Your task to perform on an android device: toggle priority inbox in the gmail app Image 0: 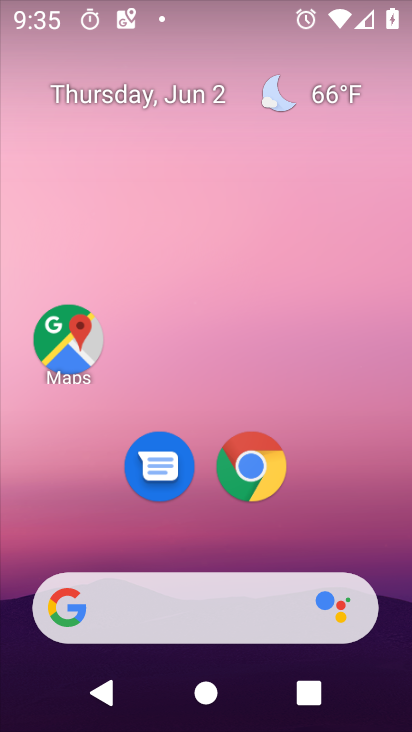
Step 0: press home button
Your task to perform on an android device: toggle priority inbox in the gmail app Image 1: 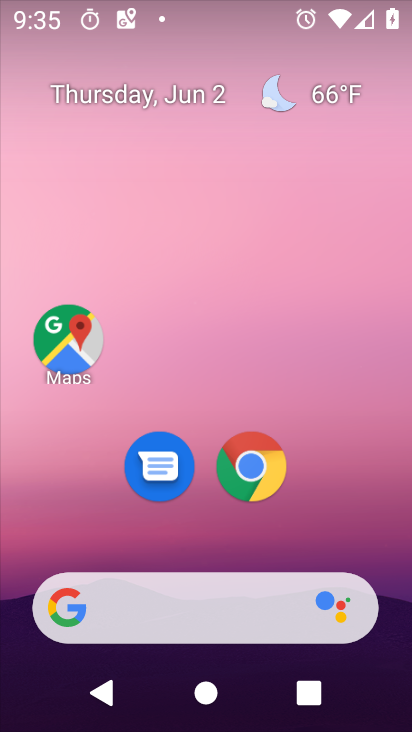
Step 1: drag from (25, 571) to (262, 137)
Your task to perform on an android device: toggle priority inbox in the gmail app Image 2: 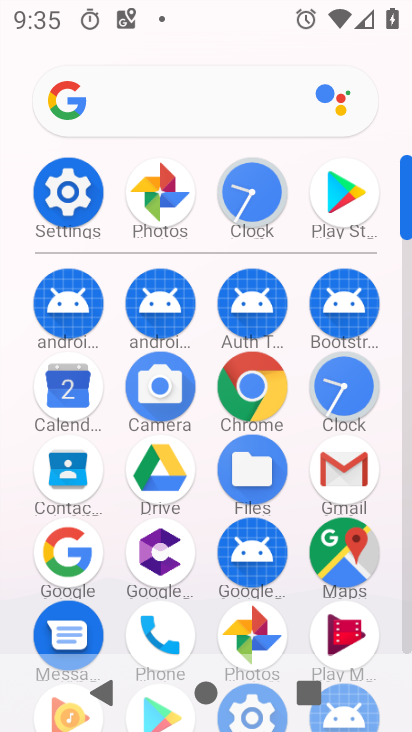
Step 2: click (343, 487)
Your task to perform on an android device: toggle priority inbox in the gmail app Image 3: 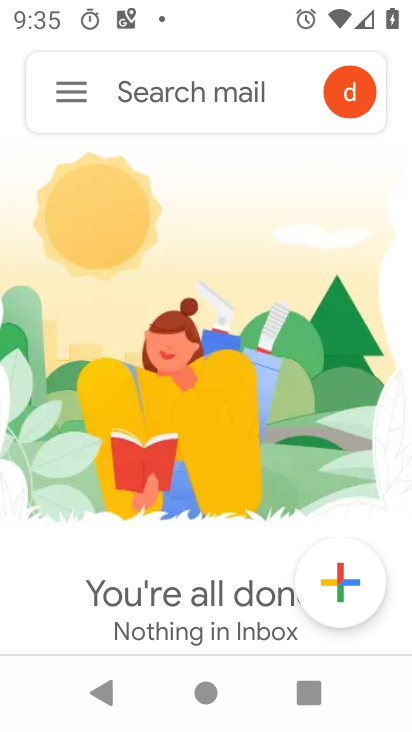
Step 3: click (58, 84)
Your task to perform on an android device: toggle priority inbox in the gmail app Image 4: 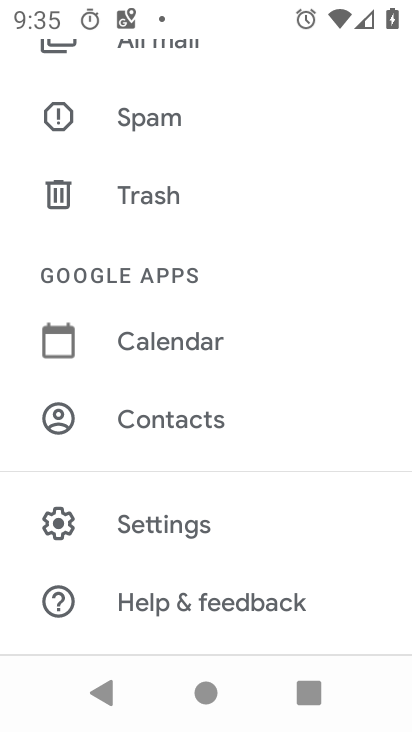
Step 4: click (98, 525)
Your task to perform on an android device: toggle priority inbox in the gmail app Image 5: 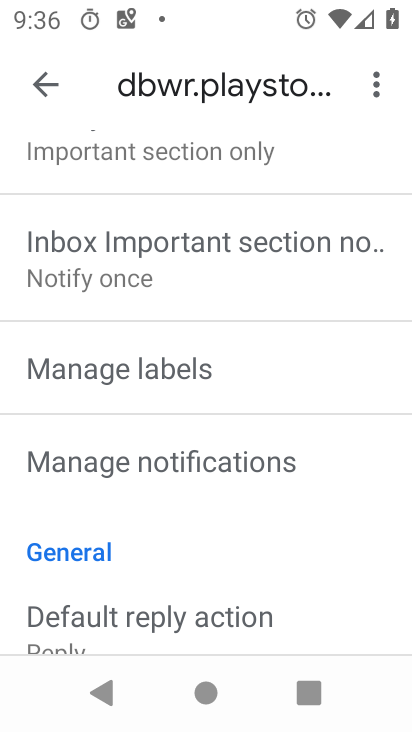
Step 5: drag from (27, 508) to (263, 104)
Your task to perform on an android device: toggle priority inbox in the gmail app Image 6: 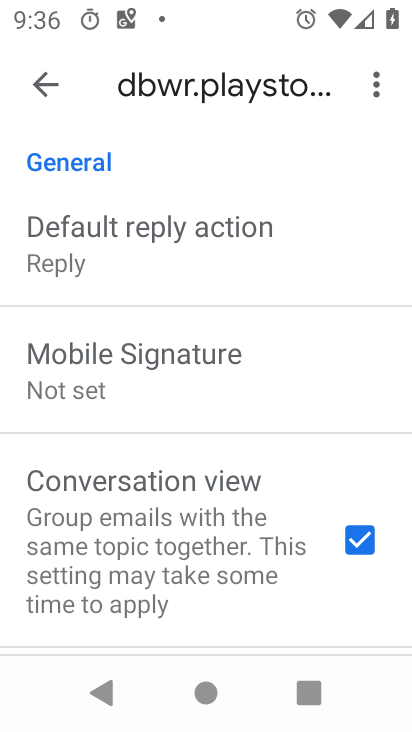
Step 6: drag from (22, 601) to (328, 91)
Your task to perform on an android device: toggle priority inbox in the gmail app Image 7: 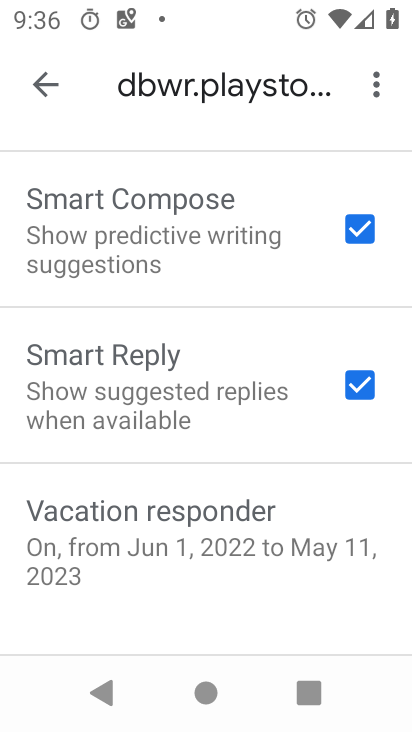
Step 7: drag from (273, 128) to (141, 635)
Your task to perform on an android device: toggle priority inbox in the gmail app Image 8: 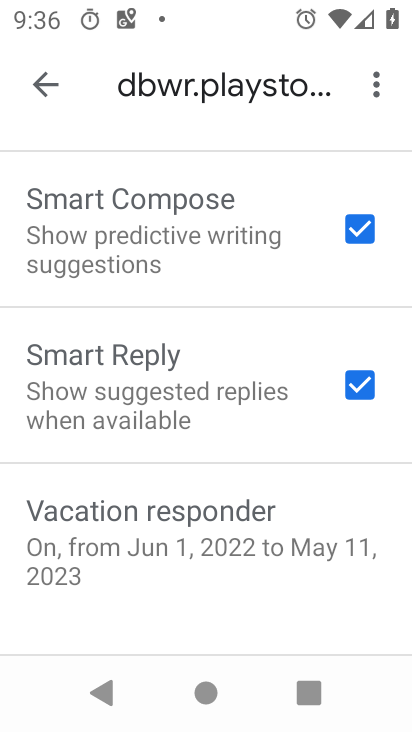
Step 8: drag from (49, 209) to (40, 671)
Your task to perform on an android device: toggle priority inbox in the gmail app Image 9: 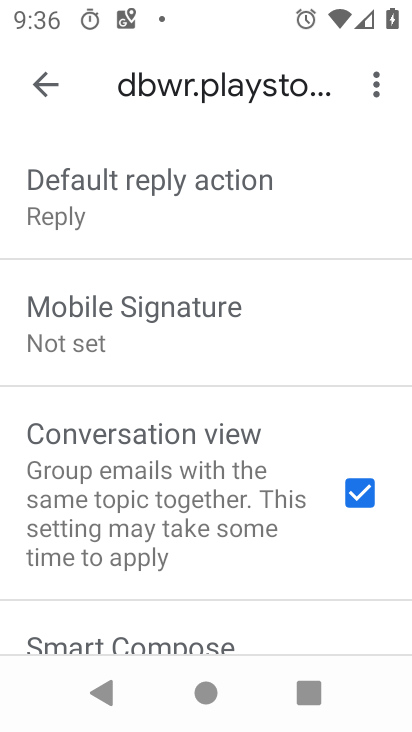
Step 9: drag from (126, 271) to (67, 672)
Your task to perform on an android device: toggle priority inbox in the gmail app Image 10: 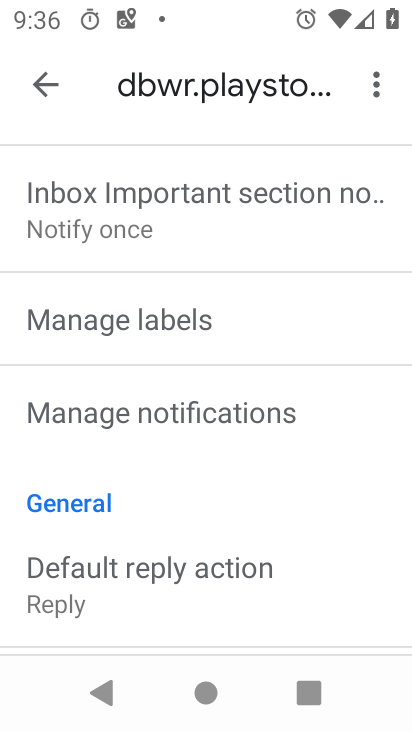
Step 10: drag from (133, 135) to (90, 501)
Your task to perform on an android device: toggle priority inbox in the gmail app Image 11: 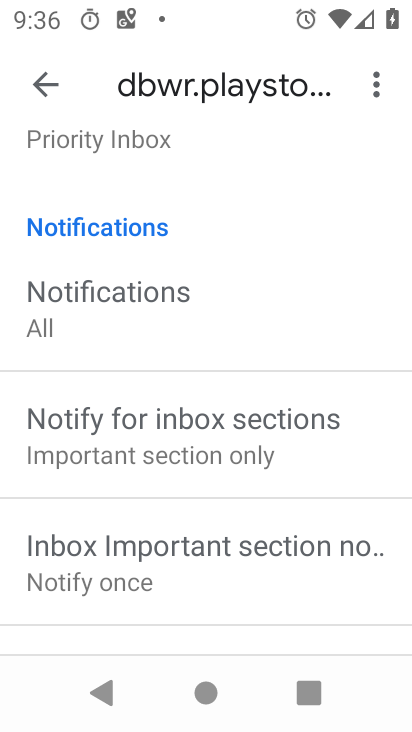
Step 11: drag from (76, 129) to (65, 561)
Your task to perform on an android device: toggle priority inbox in the gmail app Image 12: 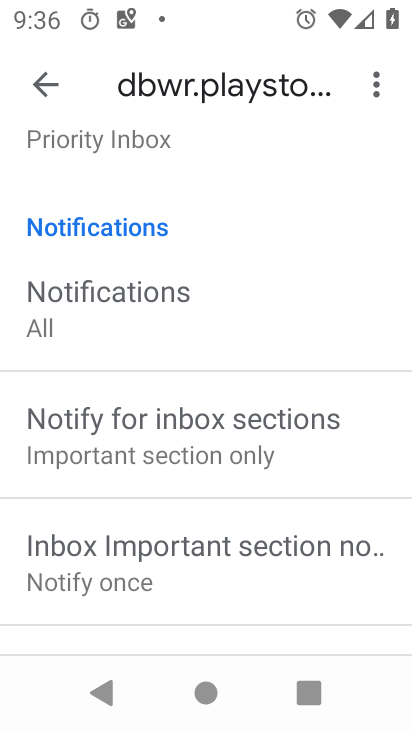
Step 12: click (68, 124)
Your task to perform on an android device: toggle priority inbox in the gmail app Image 13: 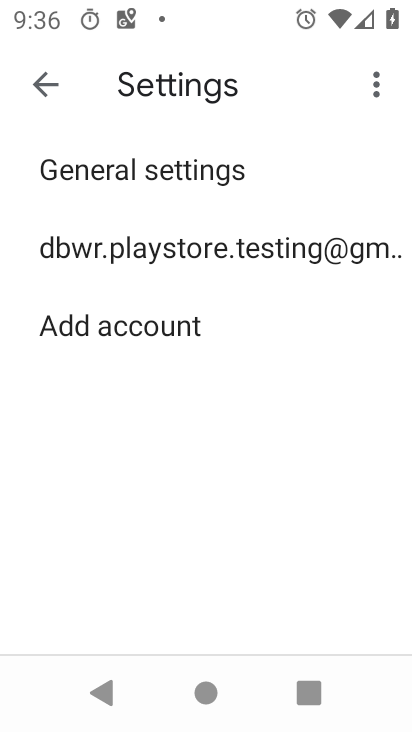
Step 13: click (129, 244)
Your task to perform on an android device: toggle priority inbox in the gmail app Image 14: 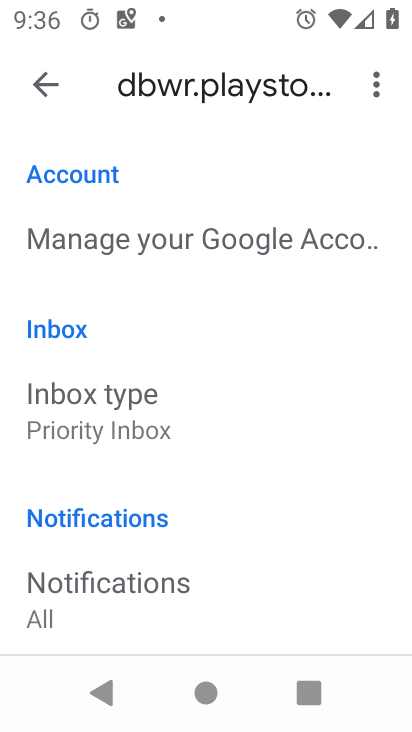
Step 14: click (51, 408)
Your task to perform on an android device: toggle priority inbox in the gmail app Image 15: 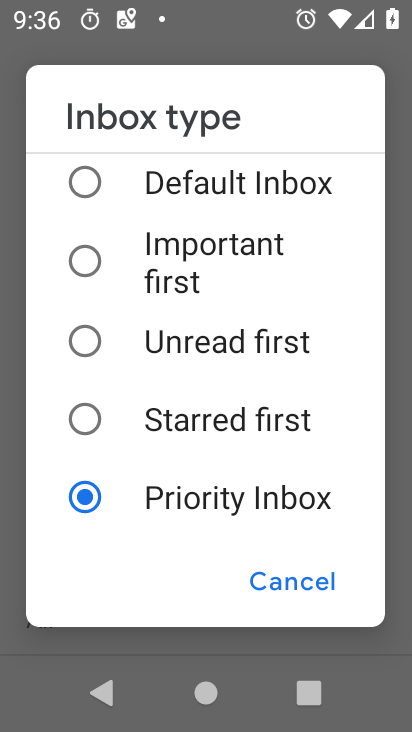
Step 15: click (81, 178)
Your task to perform on an android device: toggle priority inbox in the gmail app Image 16: 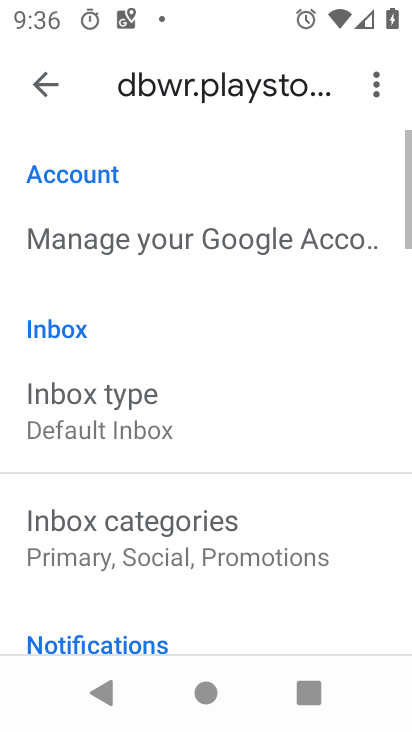
Step 16: task complete